Your task to perform on an android device: add a contact Image 0: 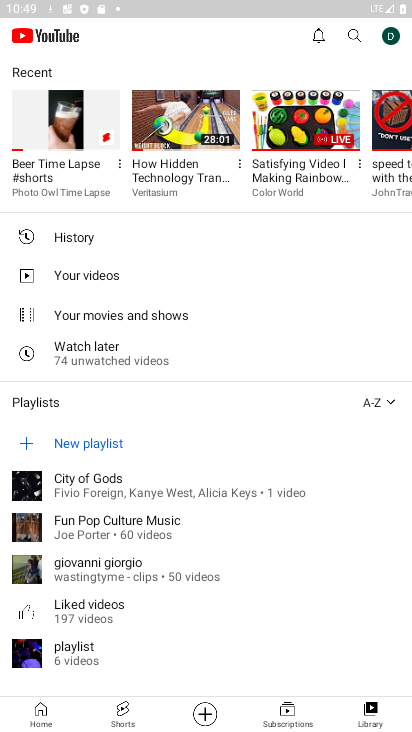
Step 0: press home button
Your task to perform on an android device: add a contact Image 1: 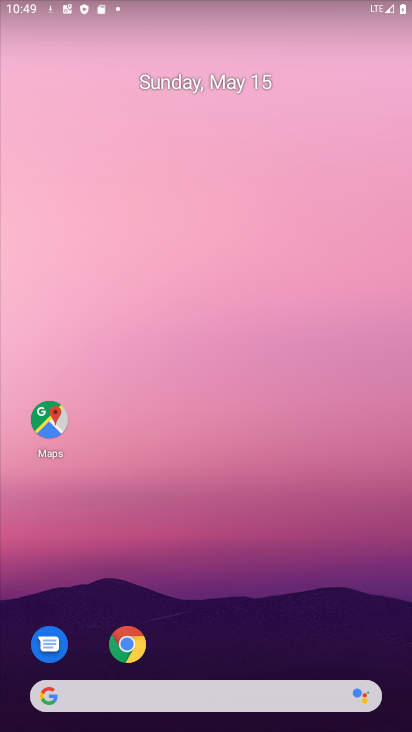
Step 1: drag from (207, 725) to (273, 374)
Your task to perform on an android device: add a contact Image 2: 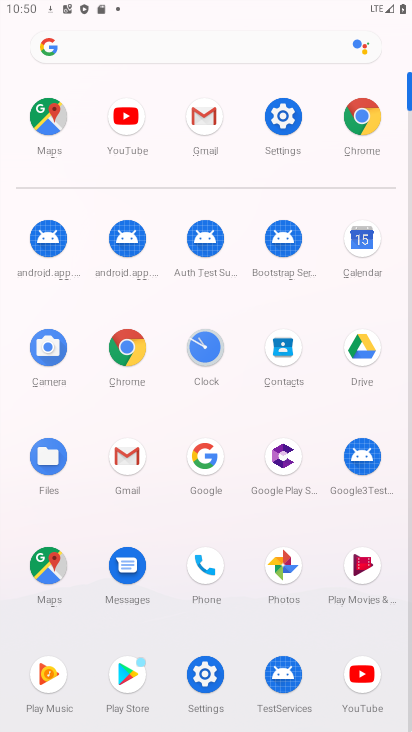
Step 2: click (191, 579)
Your task to perform on an android device: add a contact Image 3: 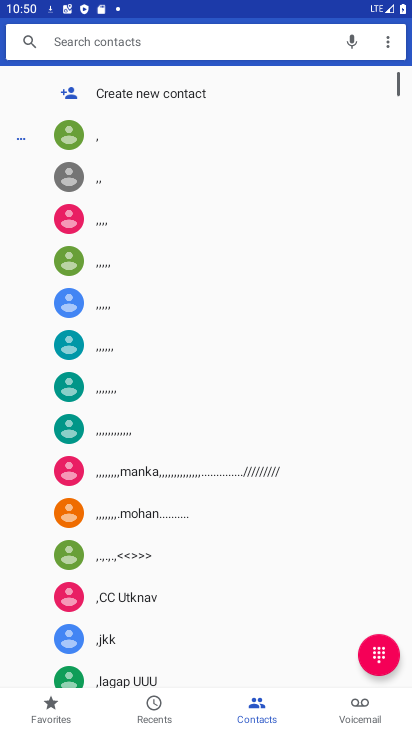
Step 3: click (178, 96)
Your task to perform on an android device: add a contact Image 4: 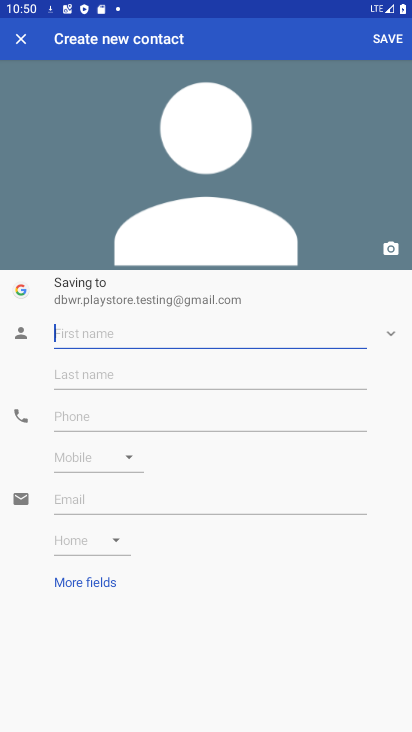
Step 4: click (123, 330)
Your task to perform on an android device: add a contact Image 5: 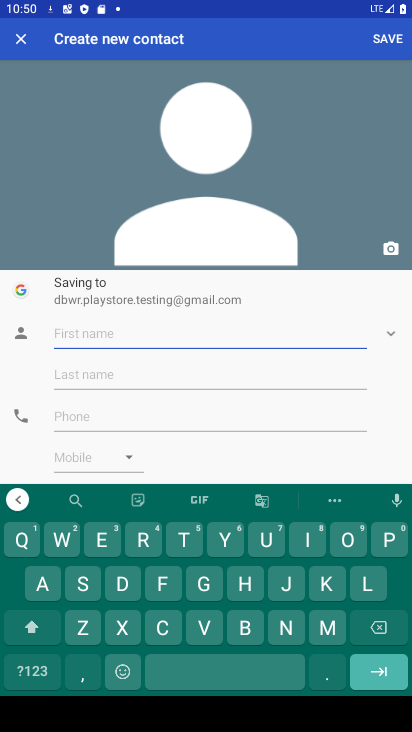
Step 5: click (105, 553)
Your task to perform on an android device: add a contact Image 6: 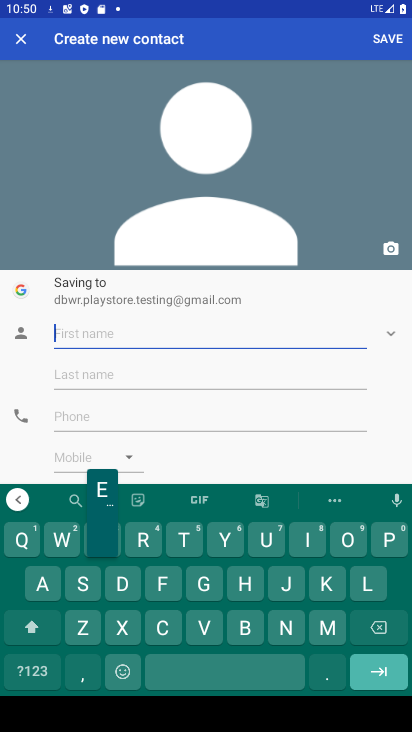
Step 6: click (139, 575)
Your task to perform on an android device: add a contact Image 7: 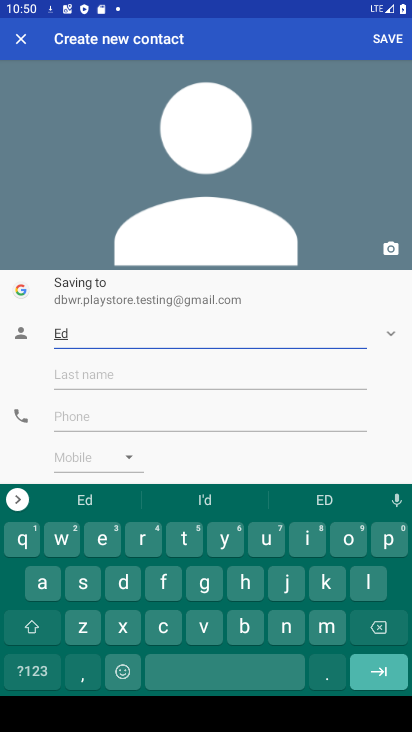
Step 7: click (44, 600)
Your task to perform on an android device: add a contact Image 8: 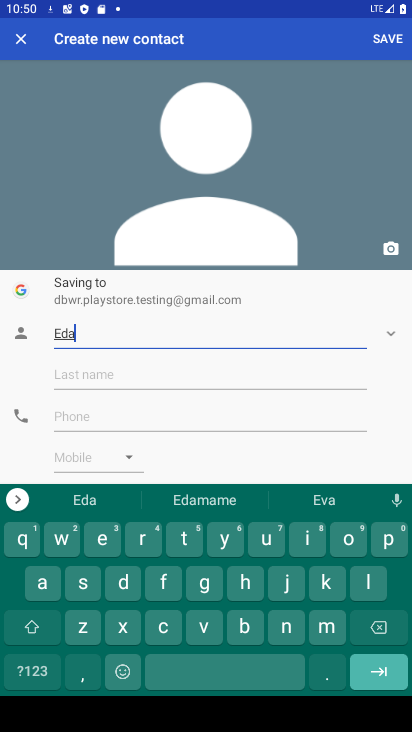
Step 8: click (70, 416)
Your task to perform on an android device: add a contact Image 9: 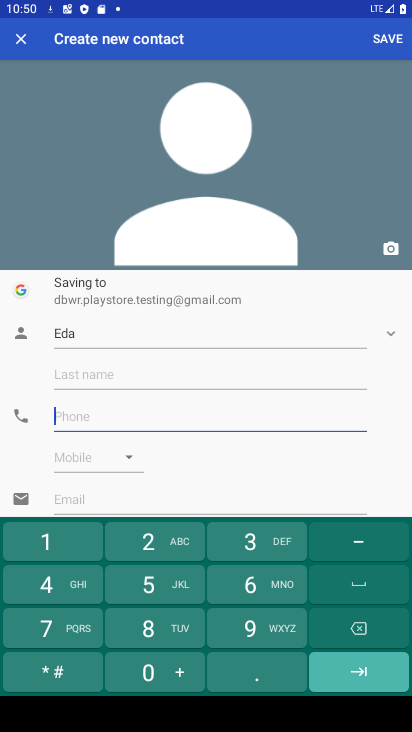
Step 9: click (268, 600)
Your task to perform on an android device: add a contact Image 10: 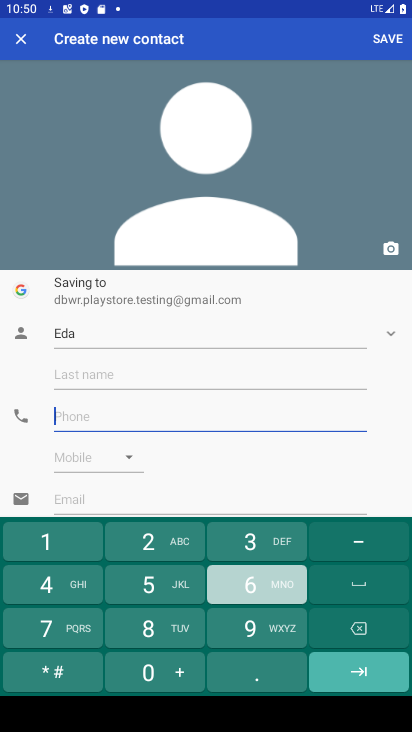
Step 10: click (195, 634)
Your task to perform on an android device: add a contact Image 11: 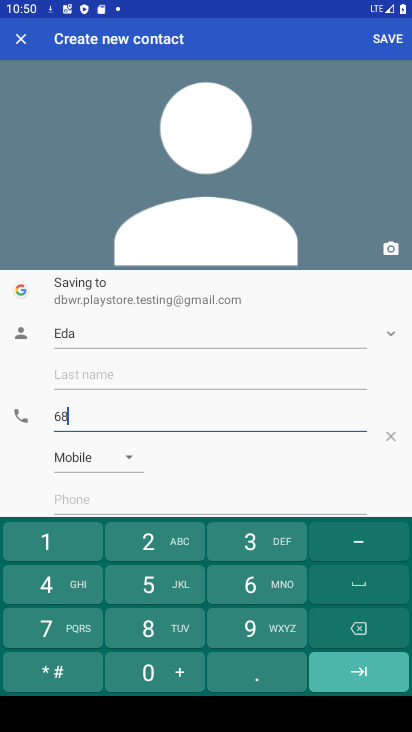
Step 11: click (112, 597)
Your task to perform on an android device: add a contact Image 12: 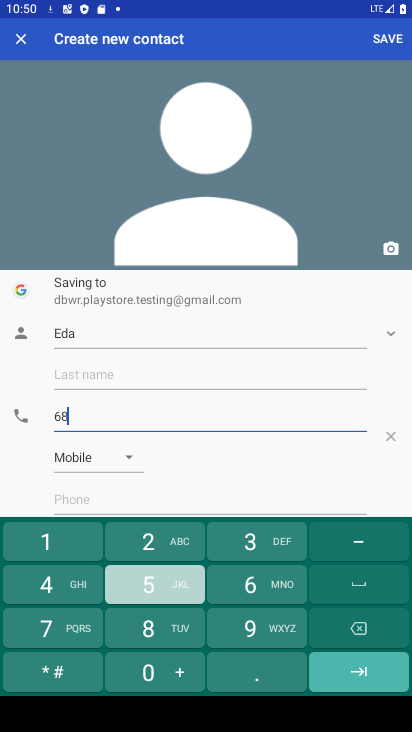
Step 12: click (75, 589)
Your task to perform on an android device: add a contact Image 13: 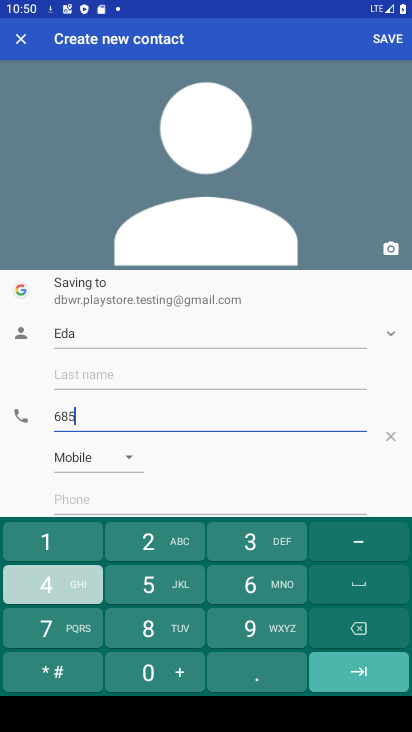
Step 13: click (160, 615)
Your task to perform on an android device: add a contact Image 14: 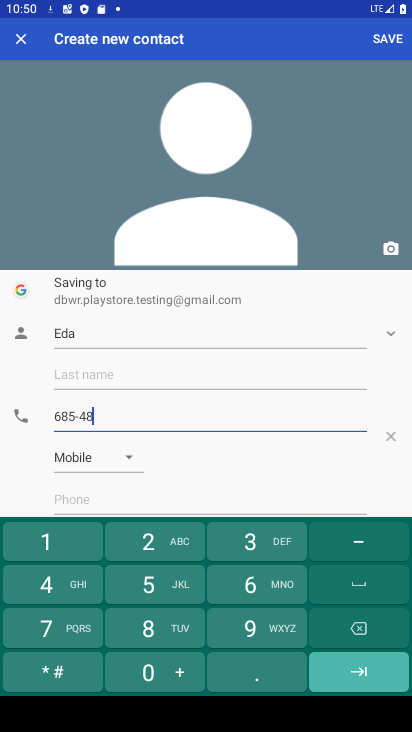
Step 14: click (390, 25)
Your task to perform on an android device: add a contact Image 15: 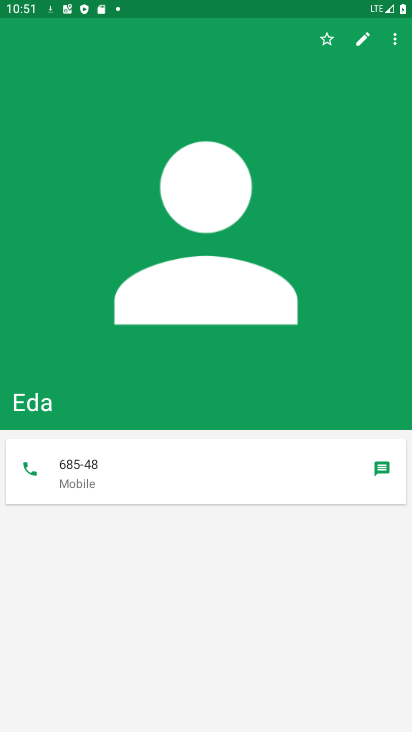
Step 15: task complete